Your task to perform on an android device: Open Chrome and go to settings Image 0: 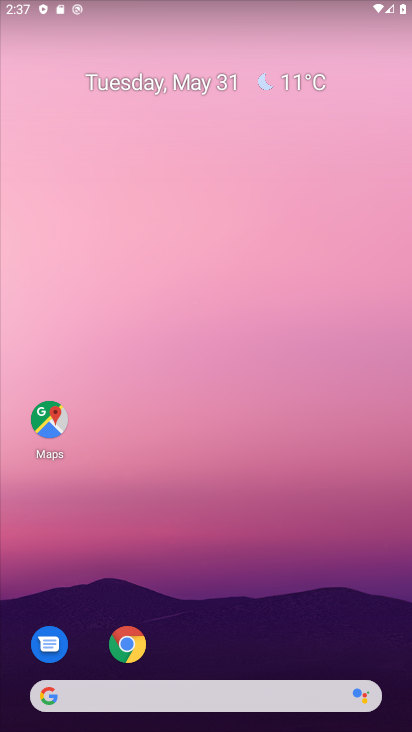
Step 0: click (136, 657)
Your task to perform on an android device: Open Chrome and go to settings Image 1: 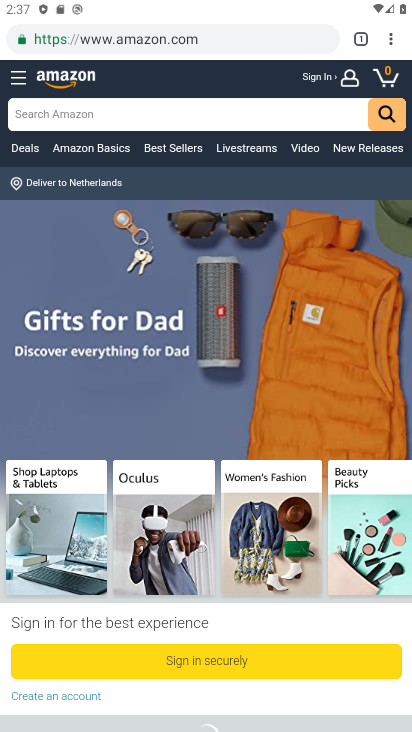
Step 1: click (389, 35)
Your task to perform on an android device: Open Chrome and go to settings Image 2: 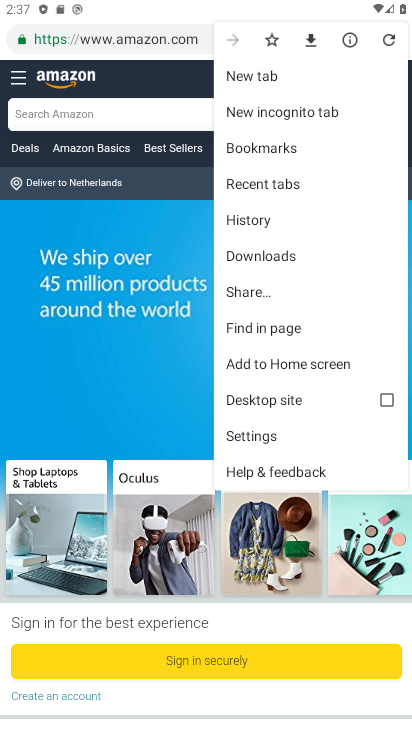
Step 2: click (256, 432)
Your task to perform on an android device: Open Chrome and go to settings Image 3: 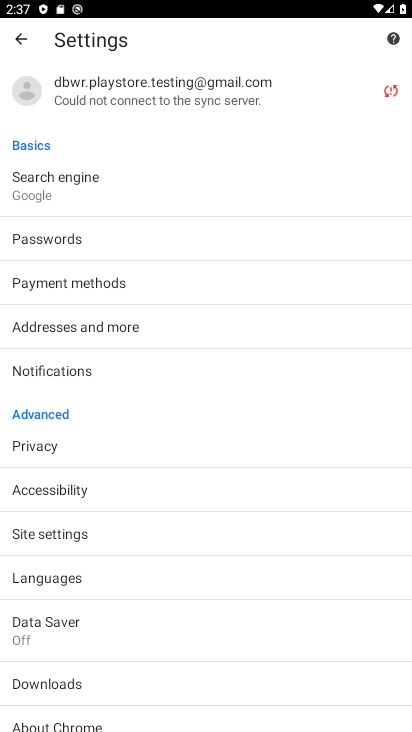
Step 3: task complete